Your task to perform on an android device: change the clock display to digital Image 0: 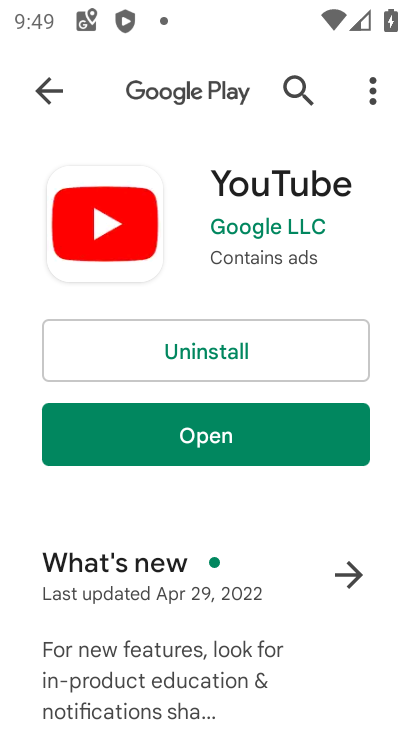
Step 0: press home button
Your task to perform on an android device: change the clock display to digital Image 1: 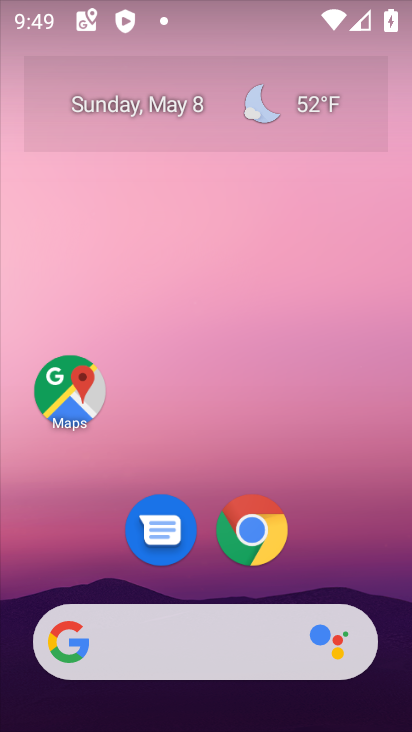
Step 1: drag from (386, 568) to (366, 122)
Your task to perform on an android device: change the clock display to digital Image 2: 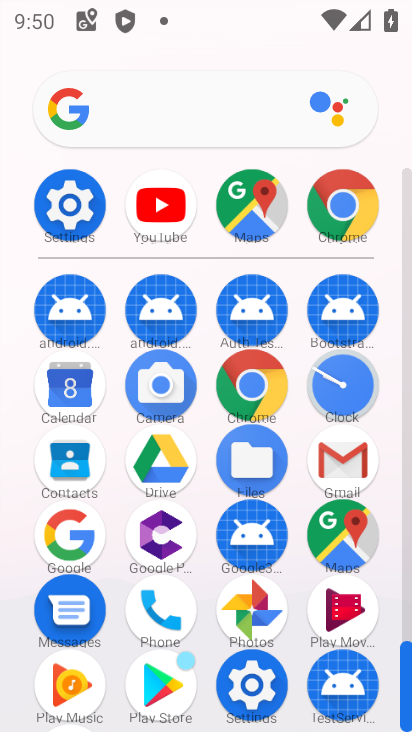
Step 2: click (344, 389)
Your task to perform on an android device: change the clock display to digital Image 3: 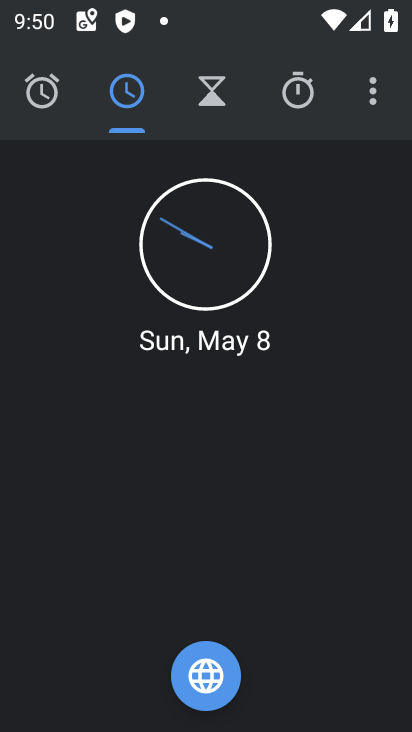
Step 3: click (380, 94)
Your task to perform on an android device: change the clock display to digital Image 4: 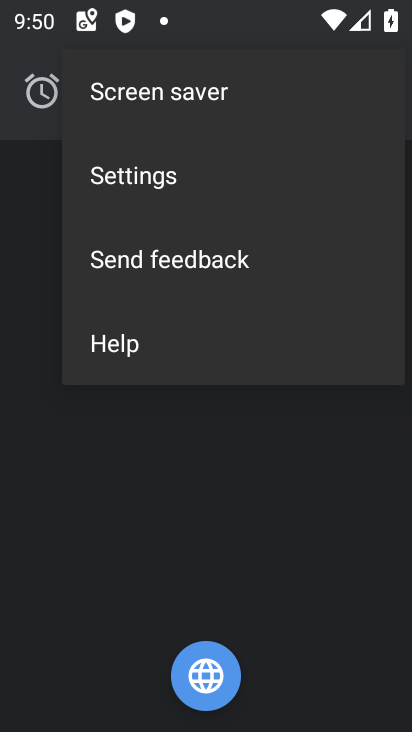
Step 4: click (187, 188)
Your task to perform on an android device: change the clock display to digital Image 5: 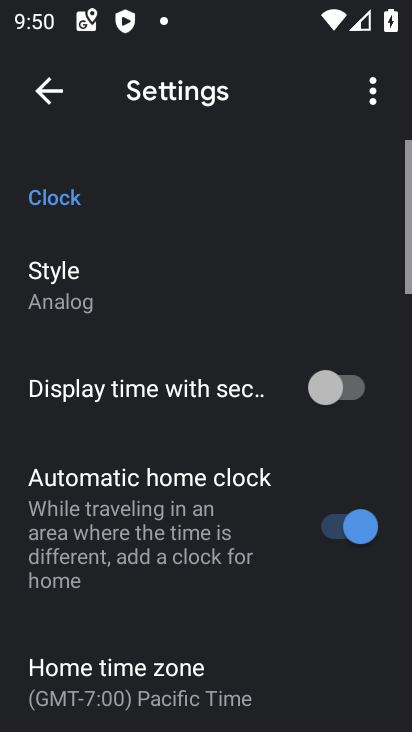
Step 5: click (66, 303)
Your task to perform on an android device: change the clock display to digital Image 6: 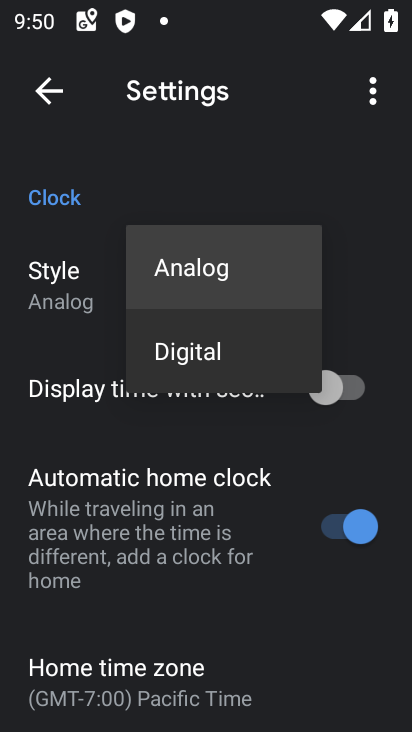
Step 6: click (193, 360)
Your task to perform on an android device: change the clock display to digital Image 7: 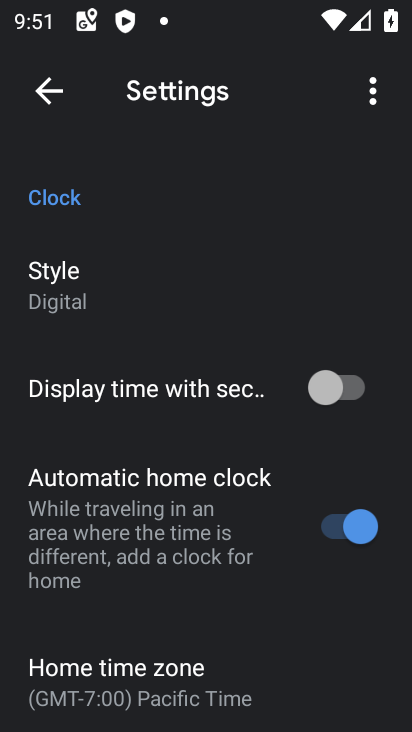
Step 7: task complete